Your task to perform on an android device: toggle notifications settings in the gmail app Image 0: 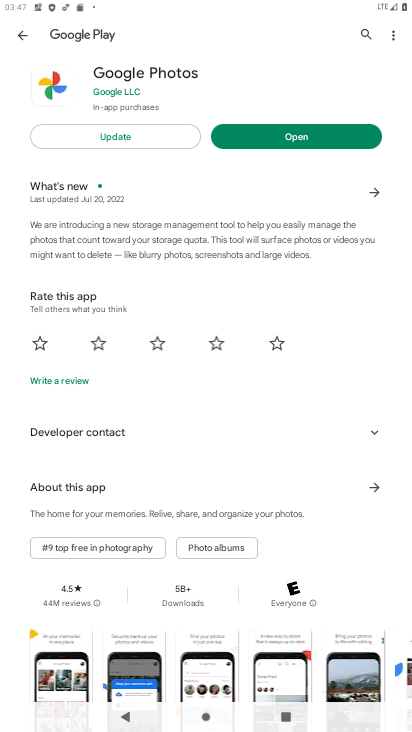
Step 0: press home button
Your task to perform on an android device: toggle notifications settings in the gmail app Image 1: 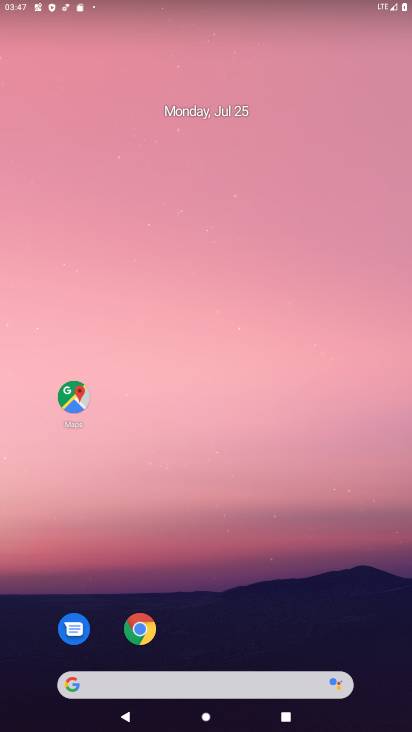
Step 1: drag from (287, 625) to (273, 10)
Your task to perform on an android device: toggle notifications settings in the gmail app Image 2: 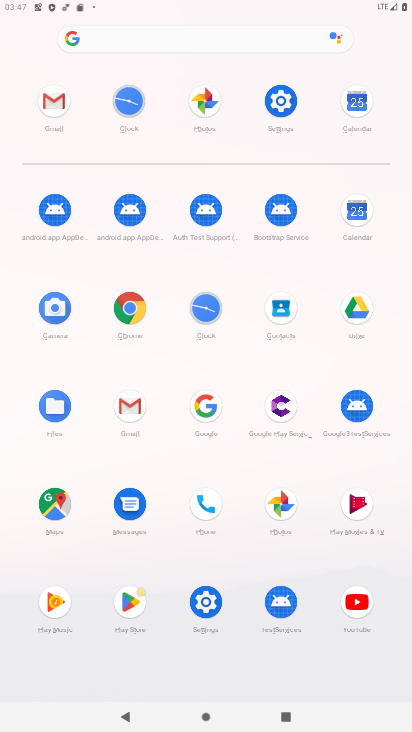
Step 2: click (58, 106)
Your task to perform on an android device: toggle notifications settings in the gmail app Image 3: 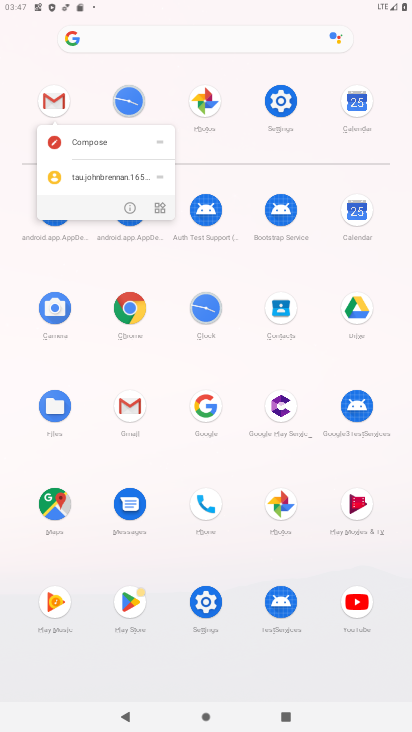
Step 3: click (58, 105)
Your task to perform on an android device: toggle notifications settings in the gmail app Image 4: 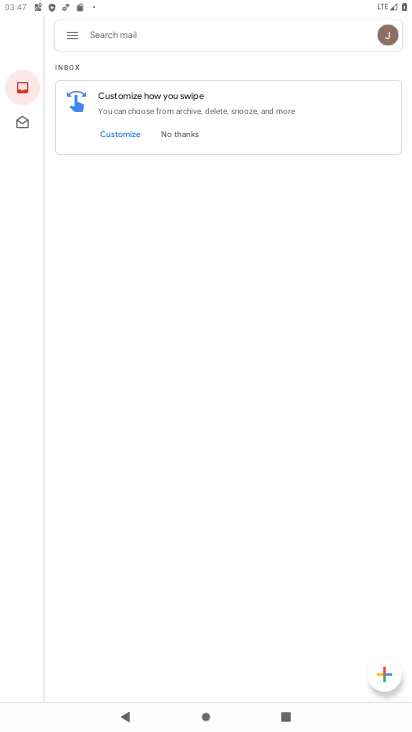
Step 4: click (70, 31)
Your task to perform on an android device: toggle notifications settings in the gmail app Image 5: 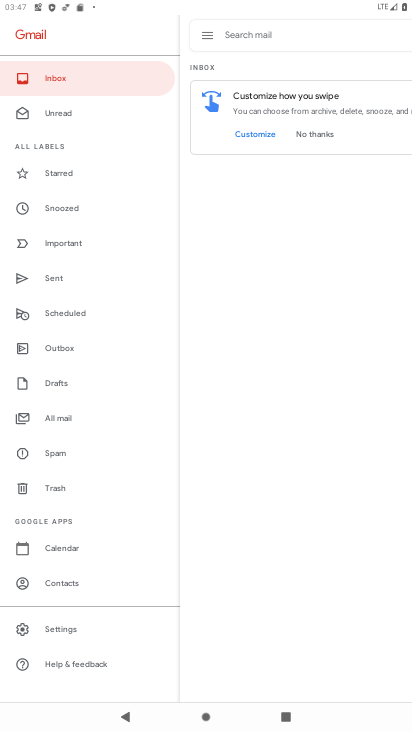
Step 5: click (70, 626)
Your task to perform on an android device: toggle notifications settings in the gmail app Image 6: 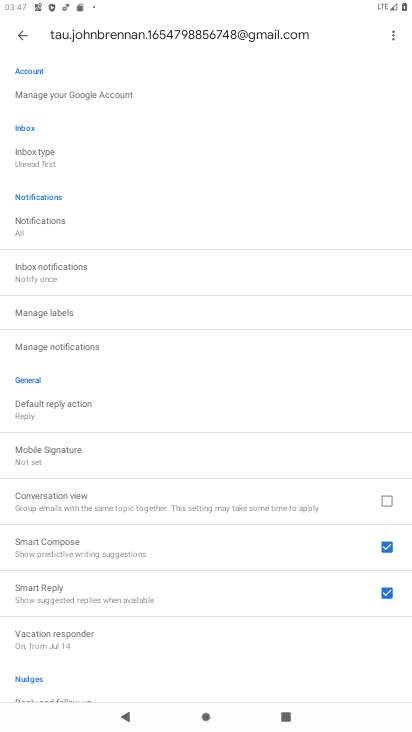
Step 6: click (28, 37)
Your task to perform on an android device: toggle notifications settings in the gmail app Image 7: 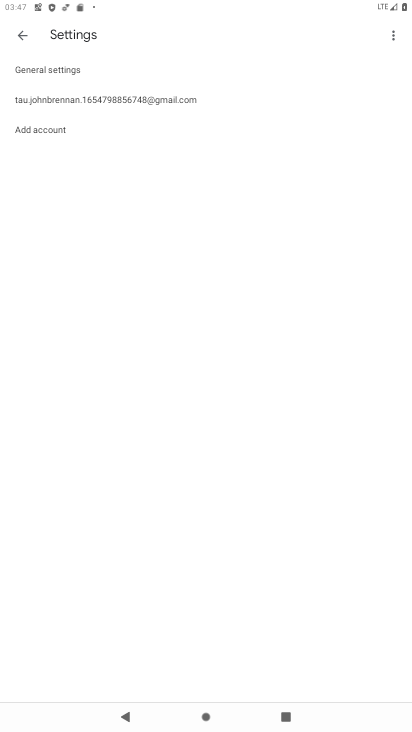
Step 7: click (49, 105)
Your task to perform on an android device: toggle notifications settings in the gmail app Image 8: 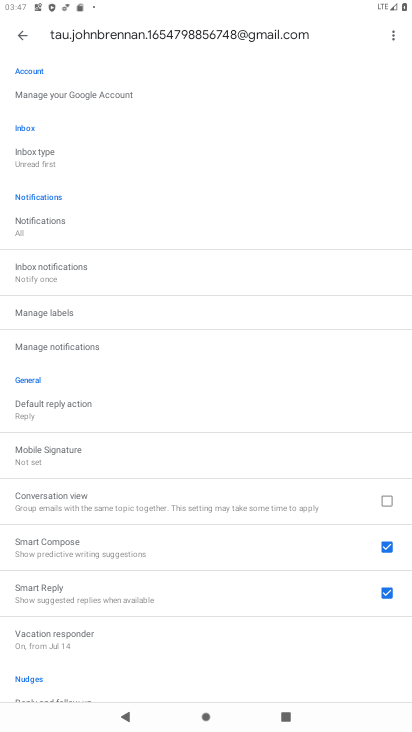
Step 8: click (13, 34)
Your task to perform on an android device: toggle notifications settings in the gmail app Image 9: 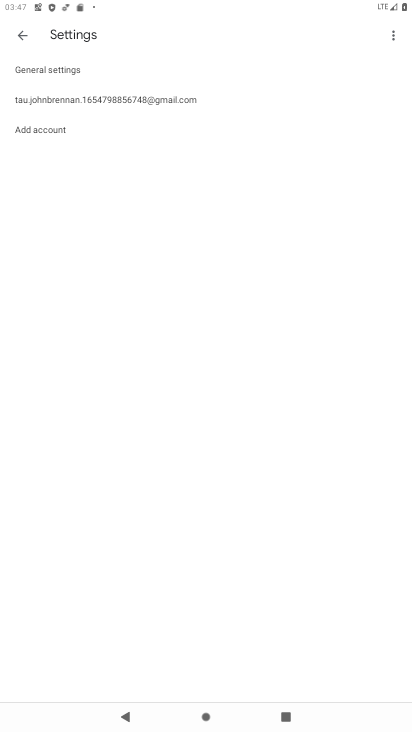
Step 9: click (35, 79)
Your task to perform on an android device: toggle notifications settings in the gmail app Image 10: 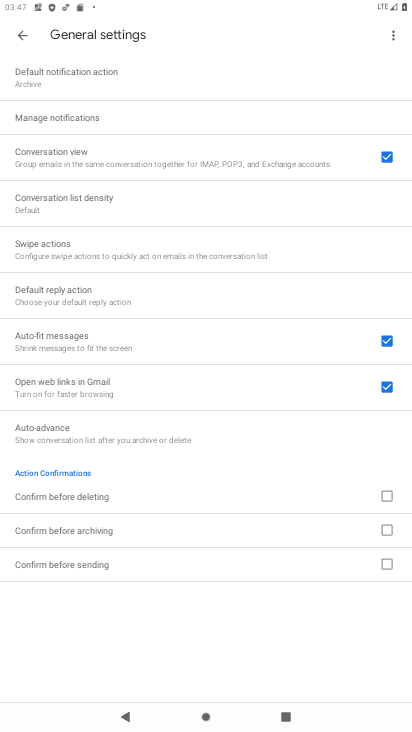
Step 10: click (43, 119)
Your task to perform on an android device: toggle notifications settings in the gmail app Image 11: 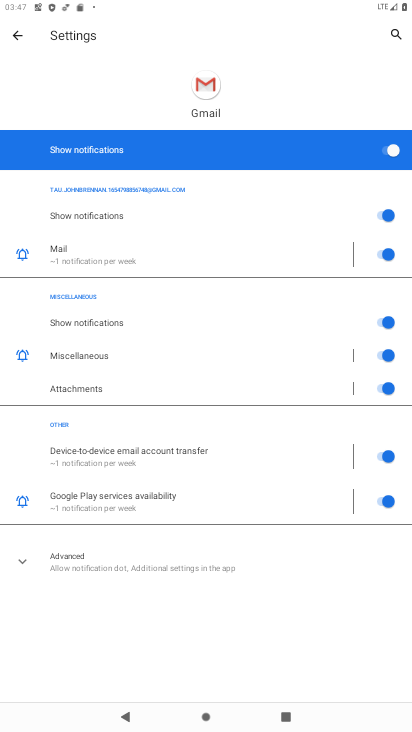
Step 11: click (399, 155)
Your task to perform on an android device: toggle notifications settings in the gmail app Image 12: 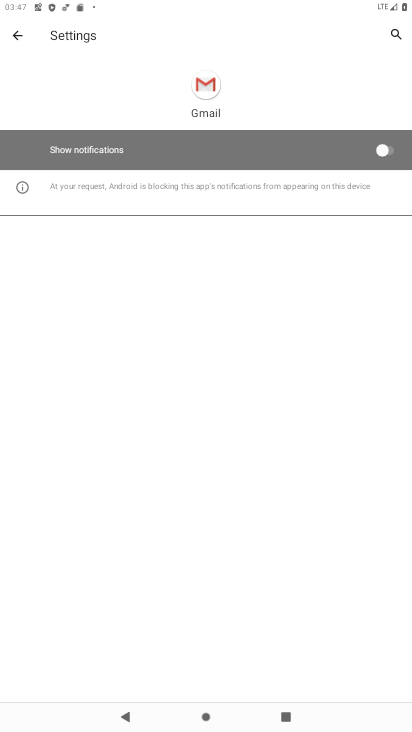
Step 12: task complete